Your task to perform on an android device: Show me the alarms in the clock app Image 0: 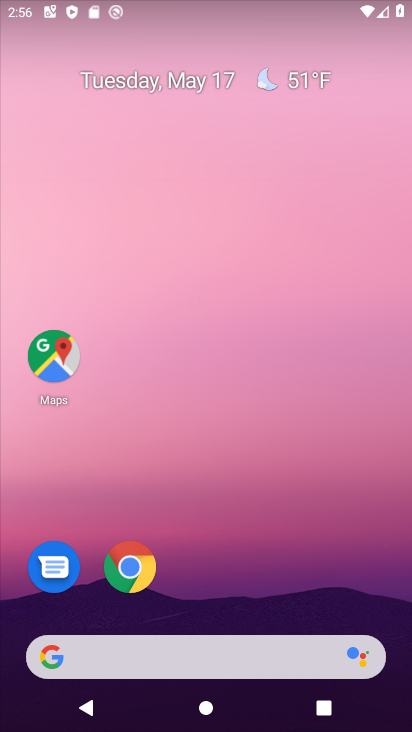
Step 0: drag from (180, 648) to (220, 199)
Your task to perform on an android device: Show me the alarms in the clock app Image 1: 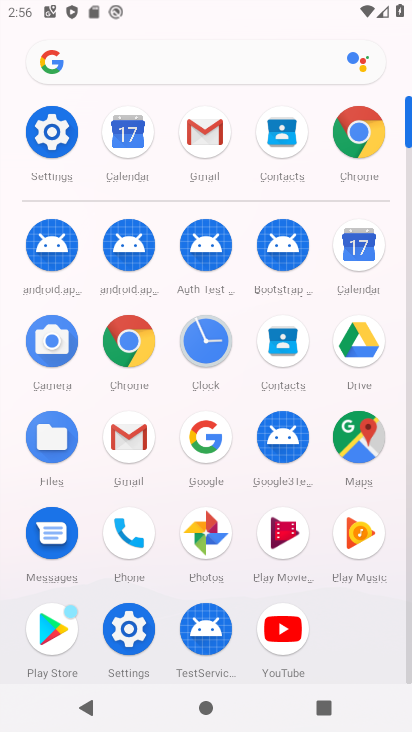
Step 1: click (186, 351)
Your task to perform on an android device: Show me the alarms in the clock app Image 2: 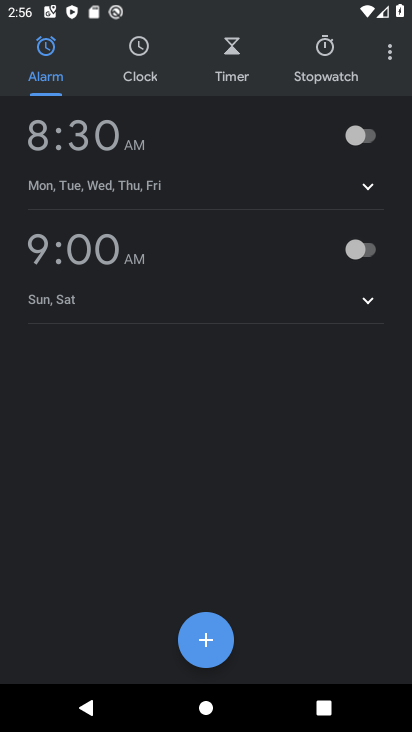
Step 2: task complete